Your task to perform on an android device: Do I have any events this weekend? Image 0: 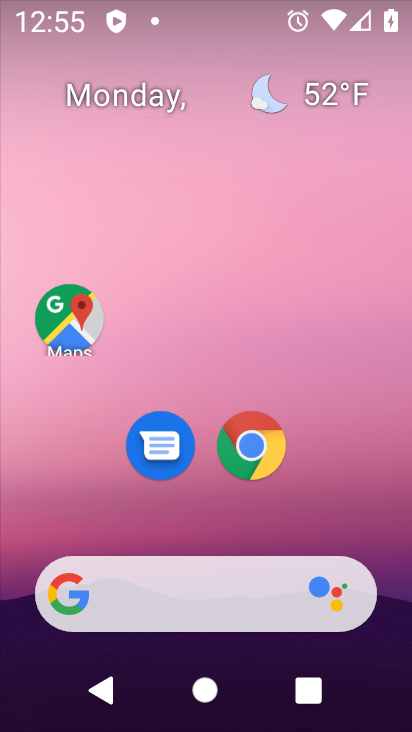
Step 0: drag from (372, 512) to (357, 74)
Your task to perform on an android device: Do I have any events this weekend? Image 1: 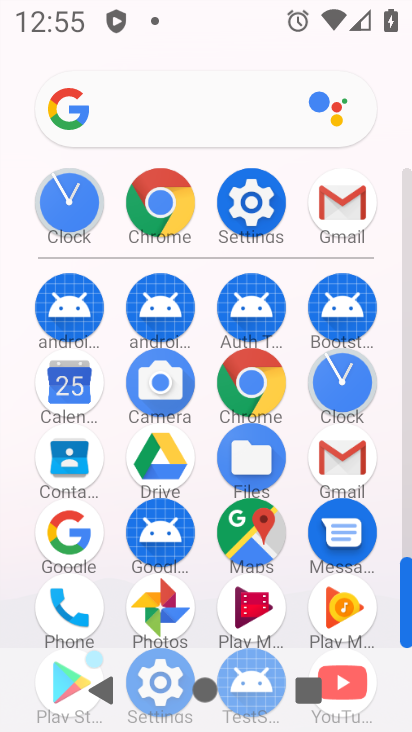
Step 1: click (69, 393)
Your task to perform on an android device: Do I have any events this weekend? Image 2: 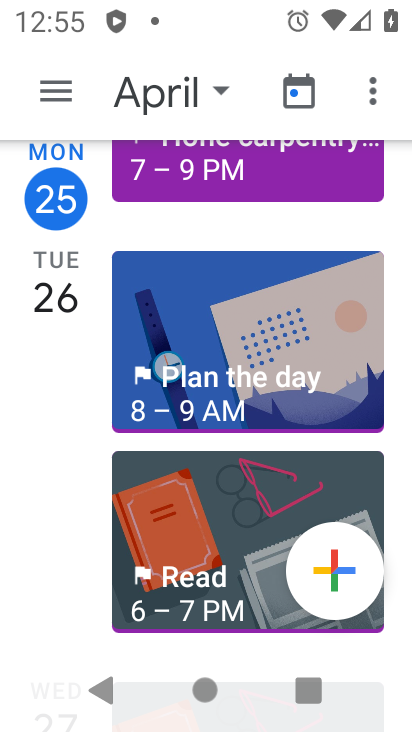
Step 2: click (161, 81)
Your task to perform on an android device: Do I have any events this weekend? Image 3: 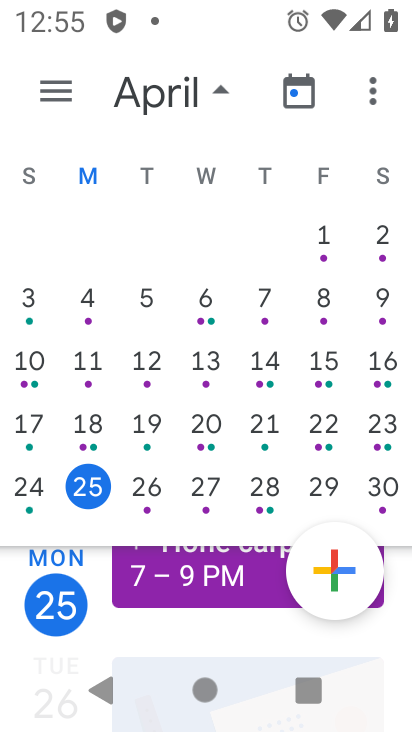
Step 3: click (324, 487)
Your task to perform on an android device: Do I have any events this weekend? Image 4: 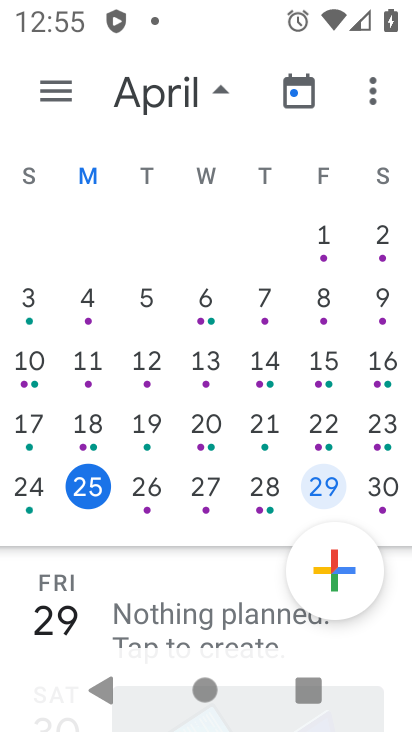
Step 4: task complete